Your task to perform on an android device: Open my contact list Image 0: 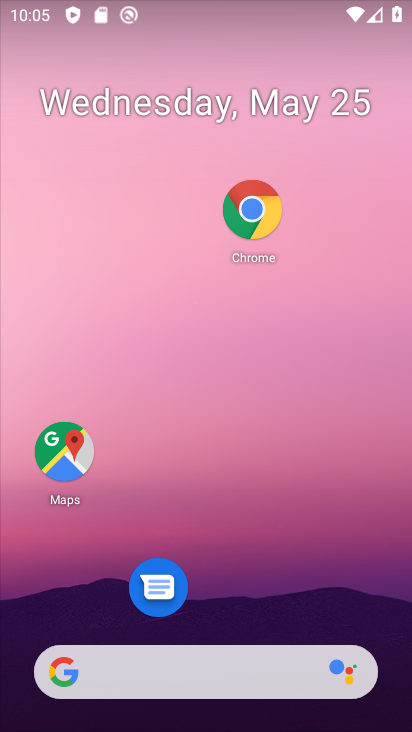
Step 0: drag from (210, 638) to (224, 77)
Your task to perform on an android device: Open my contact list Image 1: 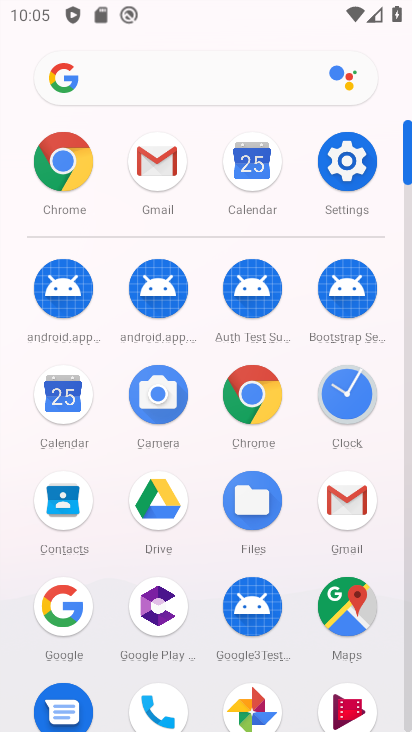
Step 1: click (60, 499)
Your task to perform on an android device: Open my contact list Image 2: 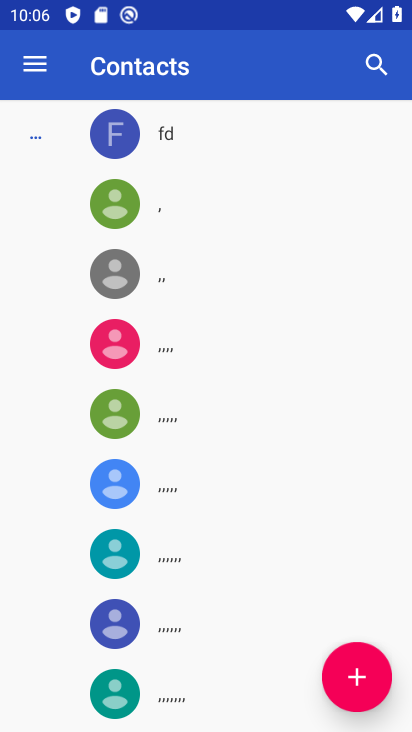
Step 2: task complete